Your task to perform on an android device: Open the calendar app, open the side menu, and click the "Day" option Image 0: 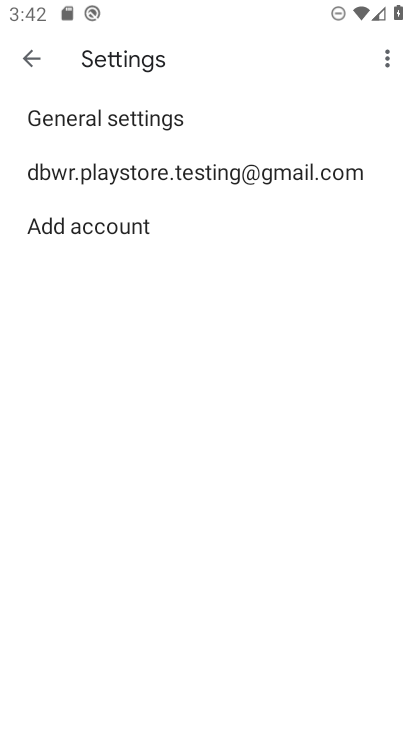
Step 0: press back button
Your task to perform on an android device: Open the calendar app, open the side menu, and click the "Day" option Image 1: 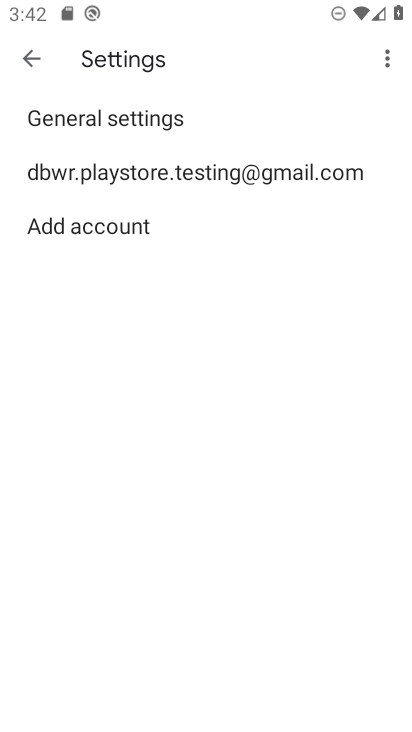
Step 1: press back button
Your task to perform on an android device: Open the calendar app, open the side menu, and click the "Day" option Image 2: 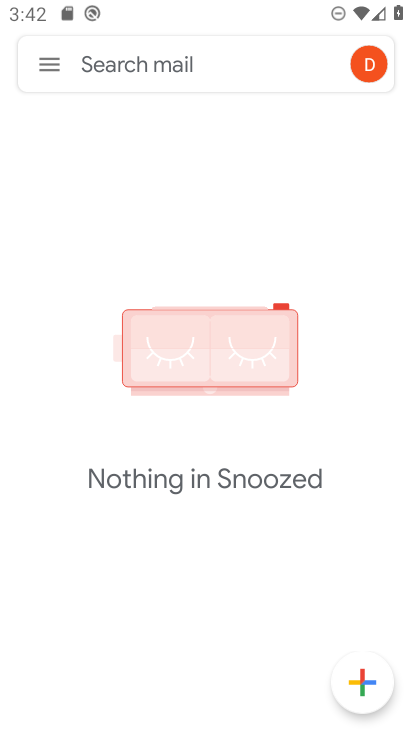
Step 2: press home button
Your task to perform on an android device: Open the calendar app, open the side menu, and click the "Day" option Image 3: 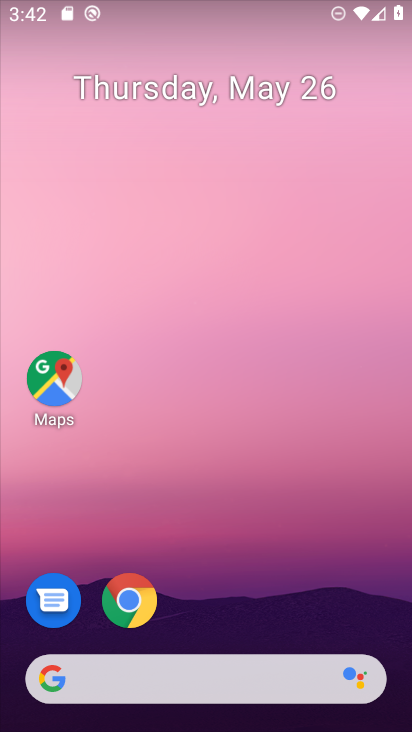
Step 3: drag from (241, 536) to (213, 55)
Your task to perform on an android device: Open the calendar app, open the side menu, and click the "Day" option Image 4: 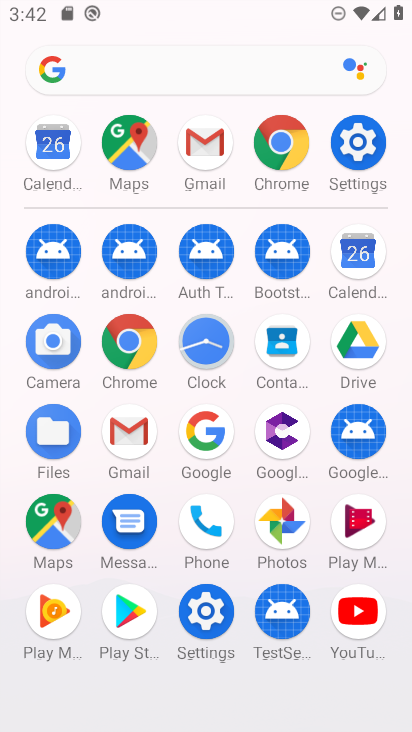
Step 4: click (369, 248)
Your task to perform on an android device: Open the calendar app, open the side menu, and click the "Day" option Image 5: 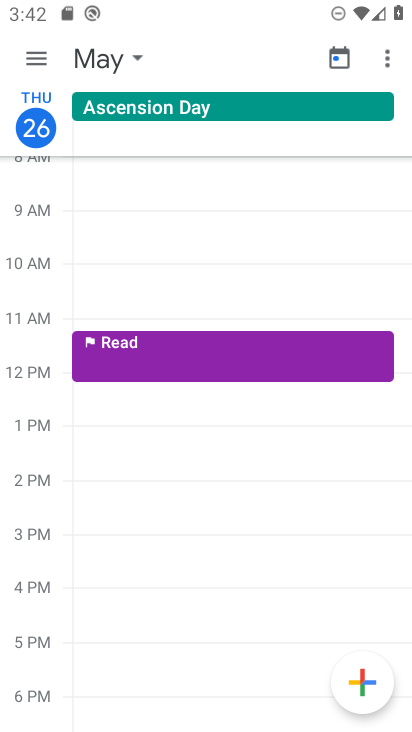
Step 5: click (38, 52)
Your task to perform on an android device: Open the calendar app, open the side menu, and click the "Day" option Image 6: 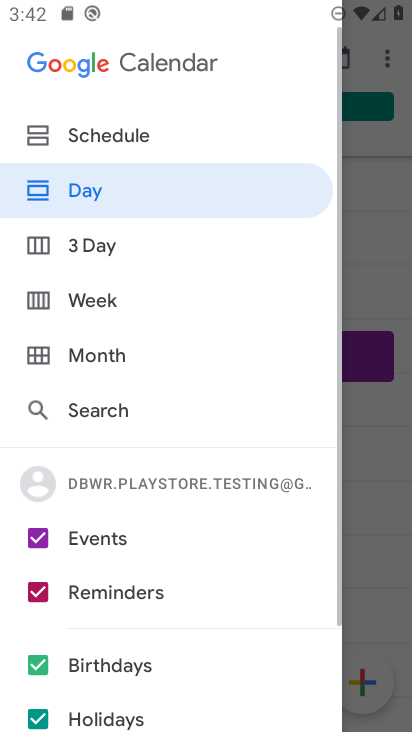
Step 6: click (171, 190)
Your task to perform on an android device: Open the calendar app, open the side menu, and click the "Day" option Image 7: 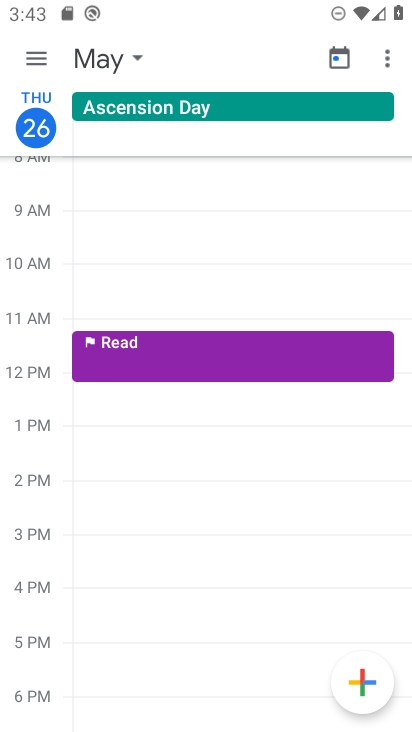
Step 7: task complete